Your task to perform on an android device: turn off data saver in the chrome app Image 0: 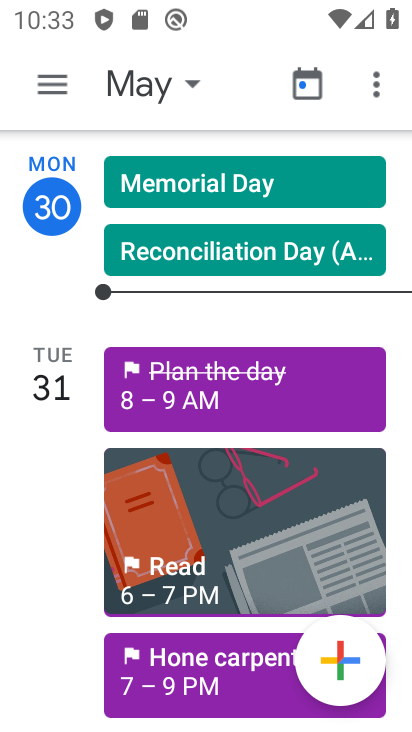
Step 0: task complete